Your task to perform on an android device: delete browsing data in the chrome app Image 0: 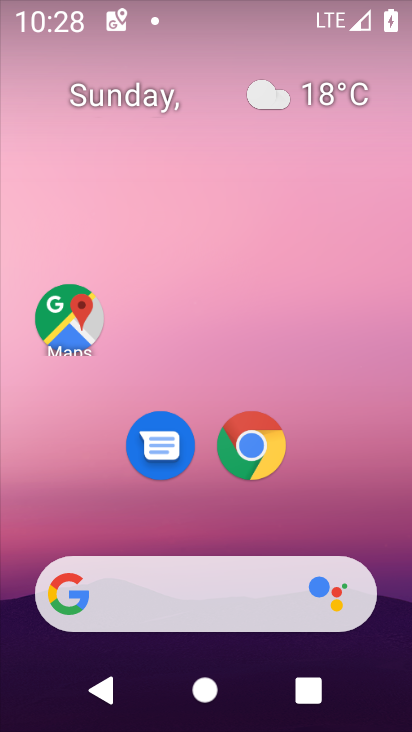
Step 0: click (247, 437)
Your task to perform on an android device: delete browsing data in the chrome app Image 1: 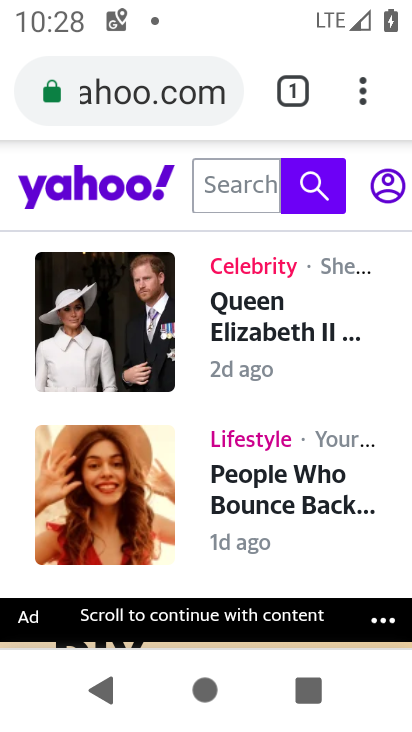
Step 1: click (361, 84)
Your task to perform on an android device: delete browsing data in the chrome app Image 2: 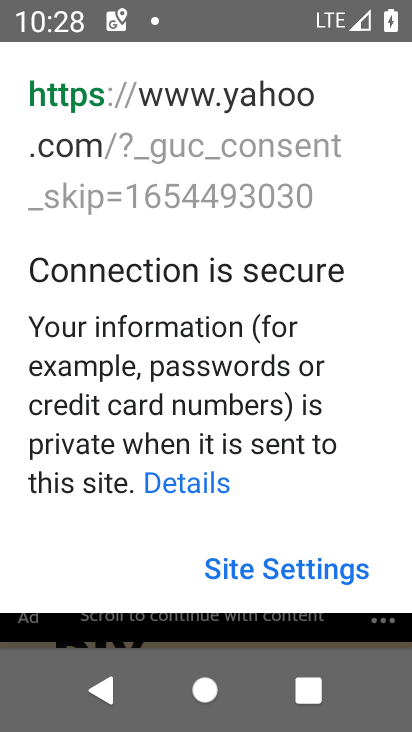
Step 2: click (147, 635)
Your task to perform on an android device: delete browsing data in the chrome app Image 3: 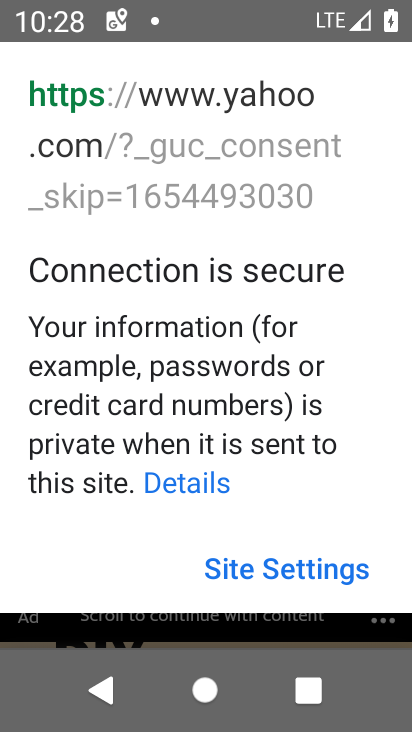
Step 3: press back button
Your task to perform on an android device: delete browsing data in the chrome app Image 4: 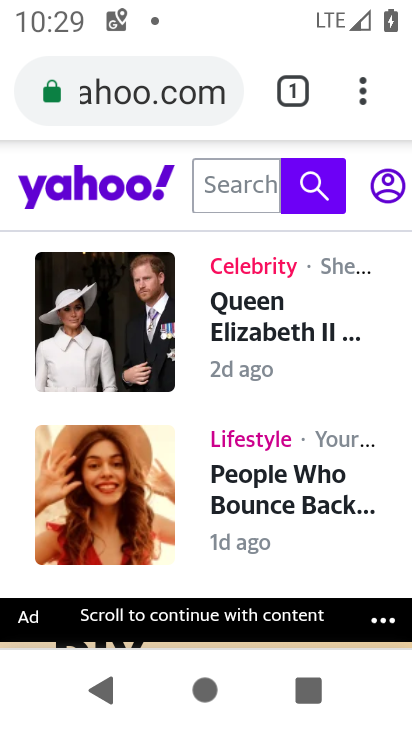
Step 4: click (361, 85)
Your task to perform on an android device: delete browsing data in the chrome app Image 5: 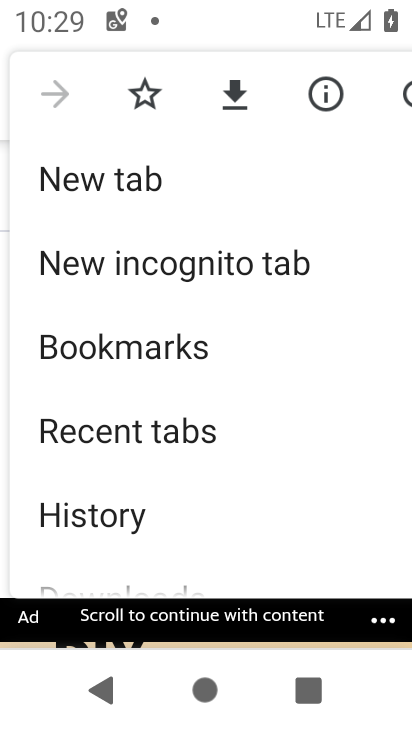
Step 5: click (162, 515)
Your task to perform on an android device: delete browsing data in the chrome app Image 6: 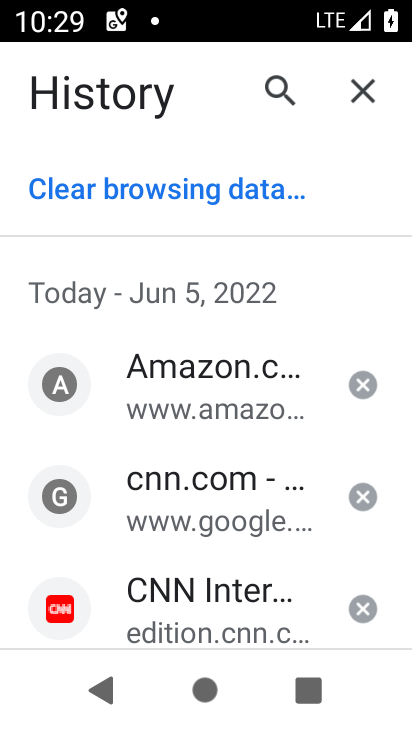
Step 6: click (171, 191)
Your task to perform on an android device: delete browsing data in the chrome app Image 7: 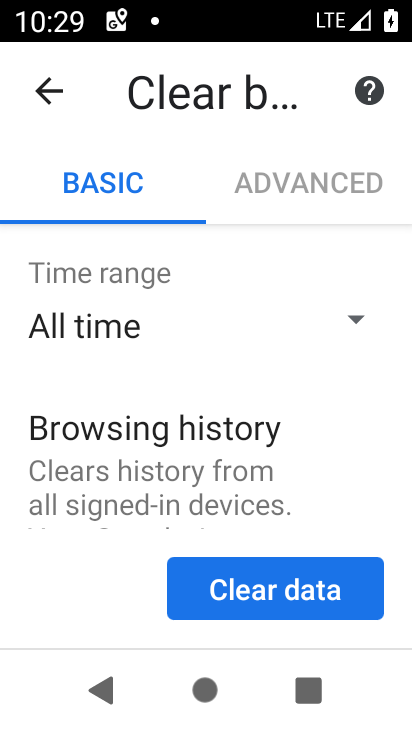
Step 7: drag from (225, 462) to (236, 159)
Your task to perform on an android device: delete browsing data in the chrome app Image 8: 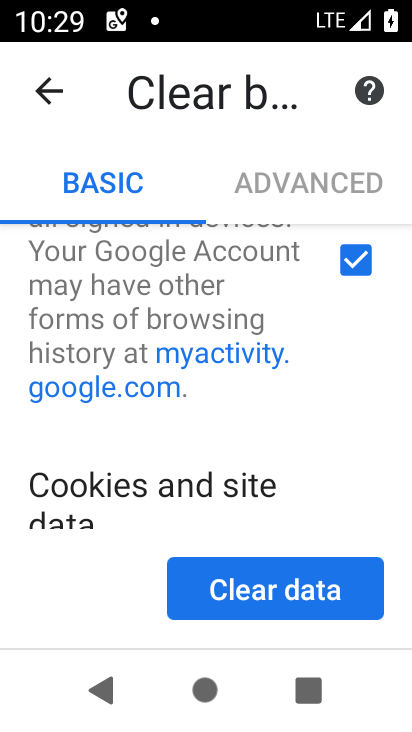
Step 8: drag from (225, 478) to (255, 174)
Your task to perform on an android device: delete browsing data in the chrome app Image 9: 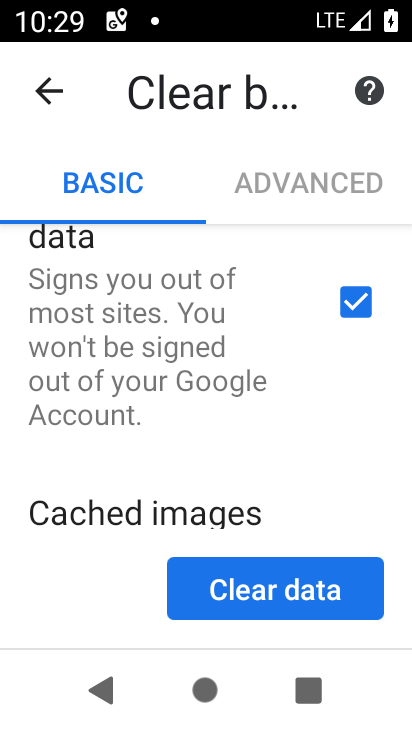
Step 9: drag from (196, 509) to (233, 252)
Your task to perform on an android device: delete browsing data in the chrome app Image 10: 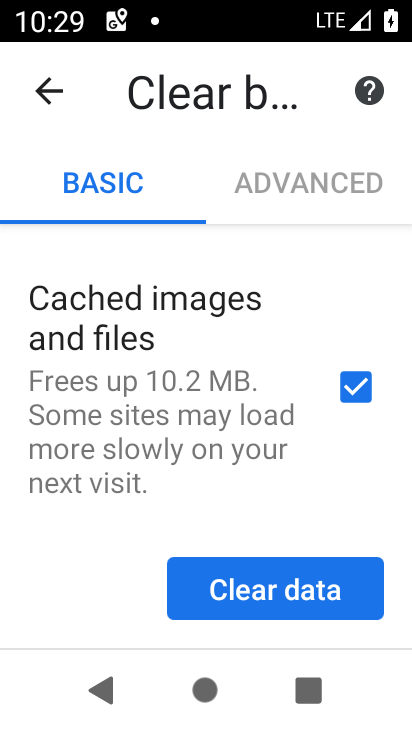
Step 10: click (281, 588)
Your task to perform on an android device: delete browsing data in the chrome app Image 11: 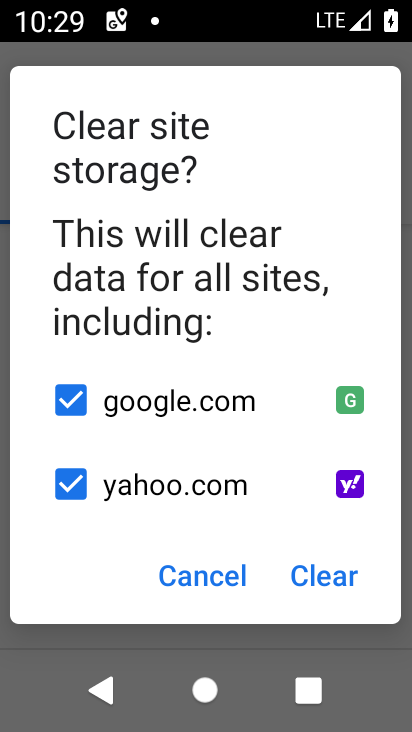
Step 11: click (326, 570)
Your task to perform on an android device: delete browsing data in the chrome app Image 12: 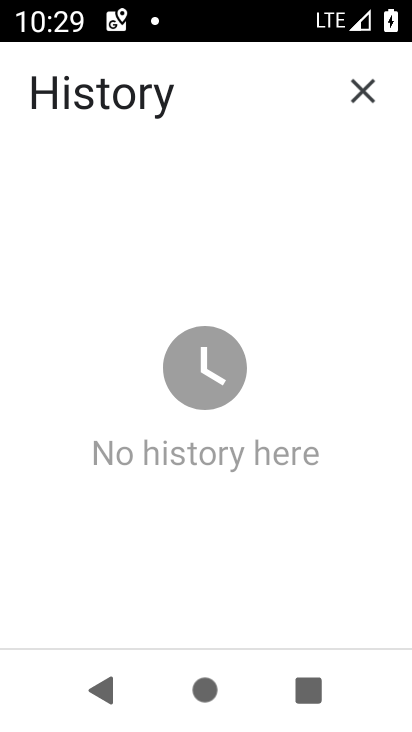
Step 12: task complete